Your task to perform on an android device: empty trash in the gmail app Image 0: 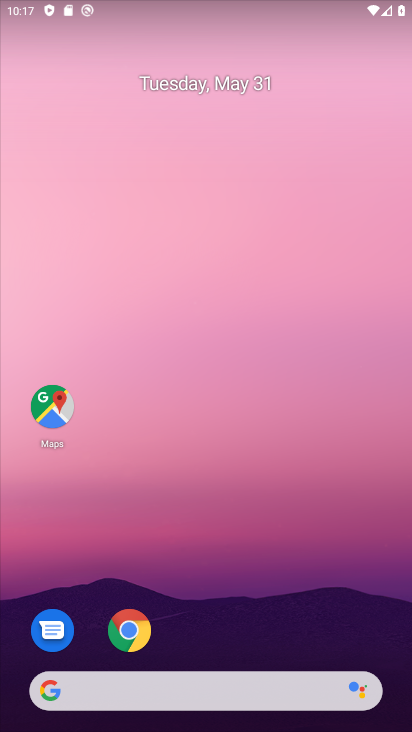
Step 0: drag from (216, 646) to (193, 1)
Your task to perform on an android device: empty trash in the gmail app Image 1: 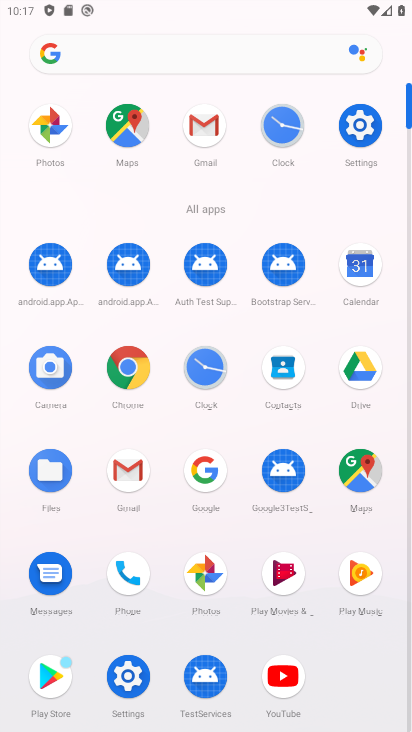
Step 1: click (131, 472)
Your task to perform on an android device: empty trash in the gmail app Image 2: 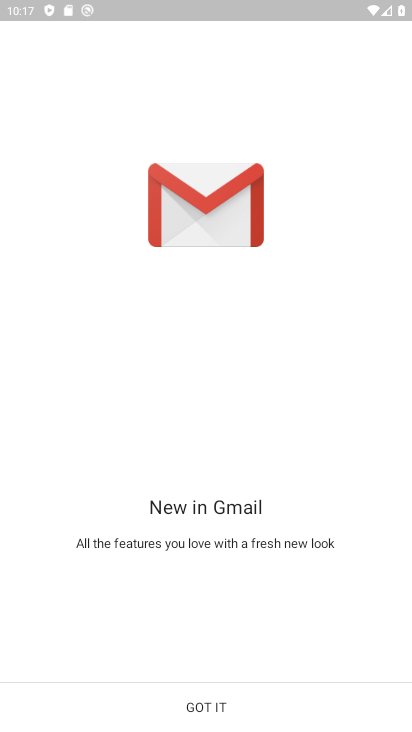
Step 2: click (212, 706)
Your task to perform on an android device: empty trash in the gmail app Image 3: 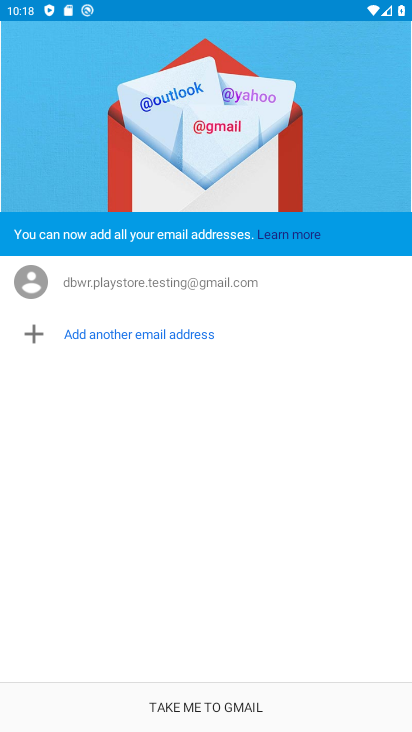
Step 3: click (228, 709)
Your task to perform on an android device: empty trash in the gmail app Image 4: 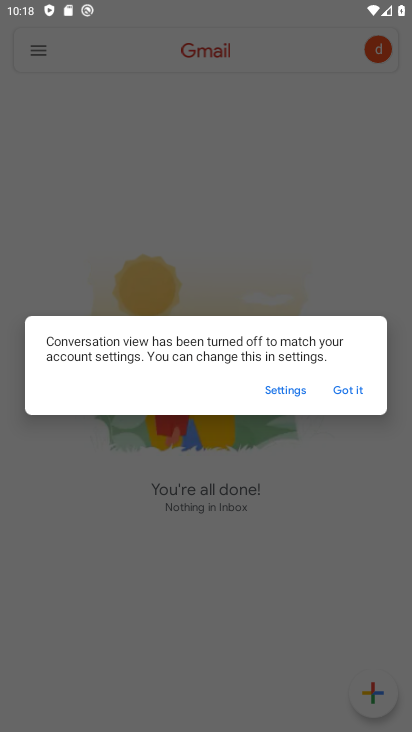
Step 4: click (347, 388)
Your task to perform on an android device: empty trash in the gmail app Image 5: 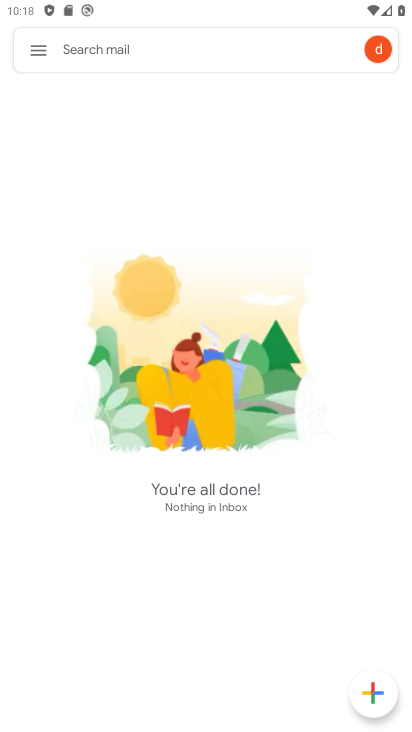
Step 5: click (43, 48)
Your task to perform on an android device: empty trash in the gmail app Image 6: 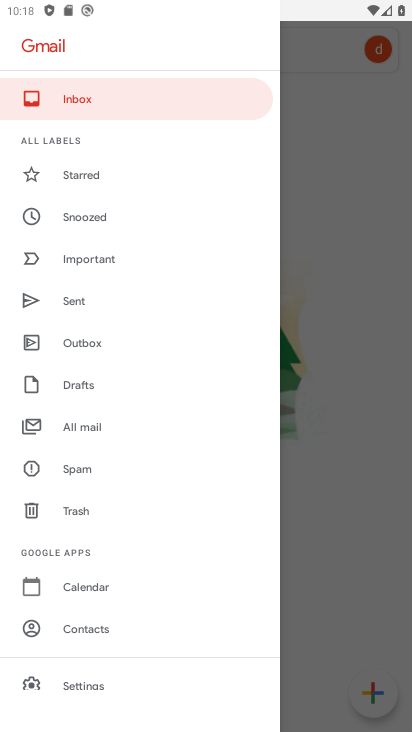
Step 6: click (81, 517)
Your task to perform on an android device: empty trash in the gmail app Image 7: 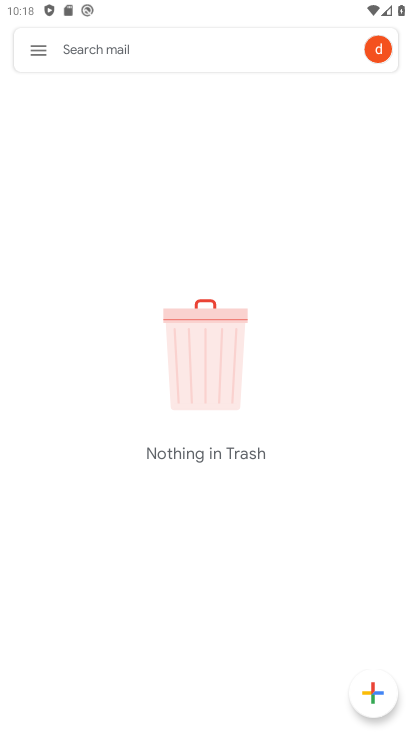
Step 7: task complete